Your task to perform on an android device: stop showing notifications on the lock screen Image 0: 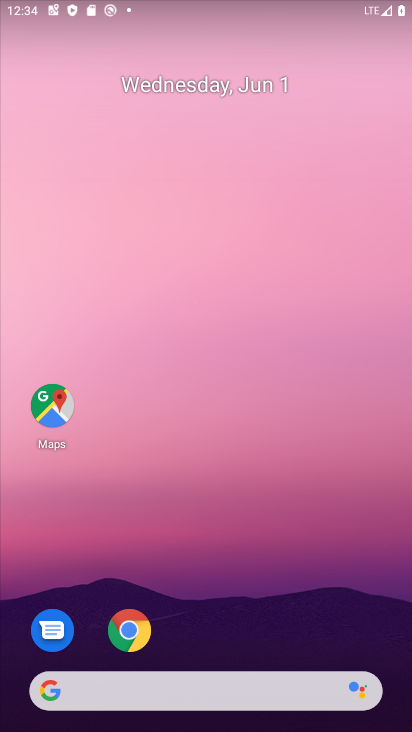
Step 0: drag from (316, 626) to (234, 97)
Your task to perform on an android device: stop showing notifications on the lock screen Image 1: 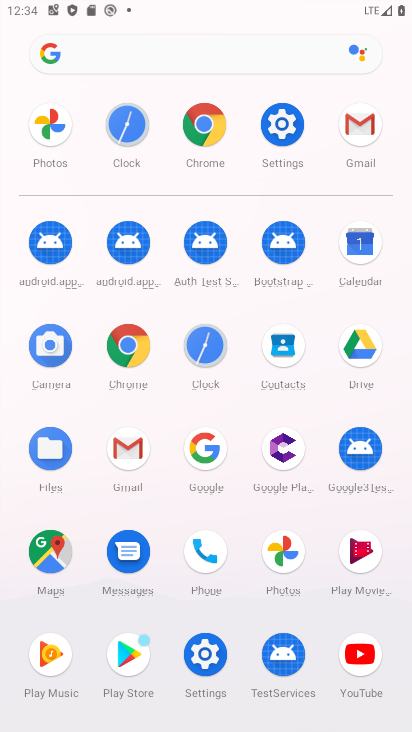
Step 1: click (286, 128)
Your task to perform on an android device: stop showing notifications on the lock screen Image 2: 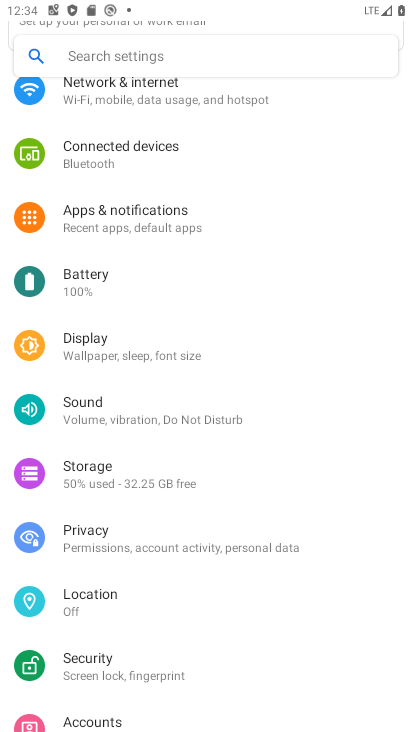
Step 2: drag from (349, 97) to (326, 367)
Your task to perform on an android device: stop showing notifications on the lock screen Image 3: 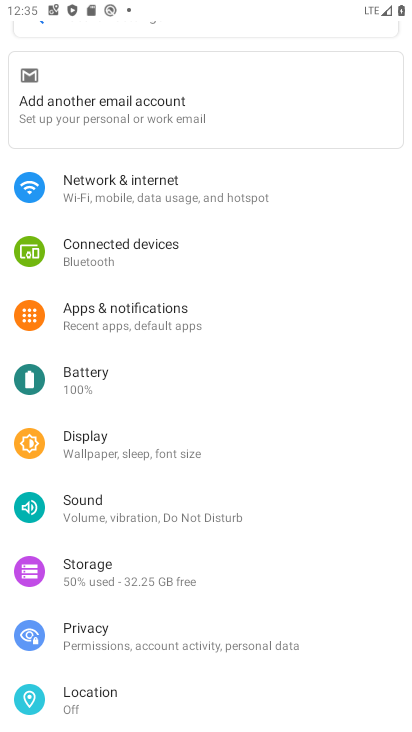
Step 3: click (124, 309)
Your task to perform on an android device: stop showing notifications on the lock screen Image 4: 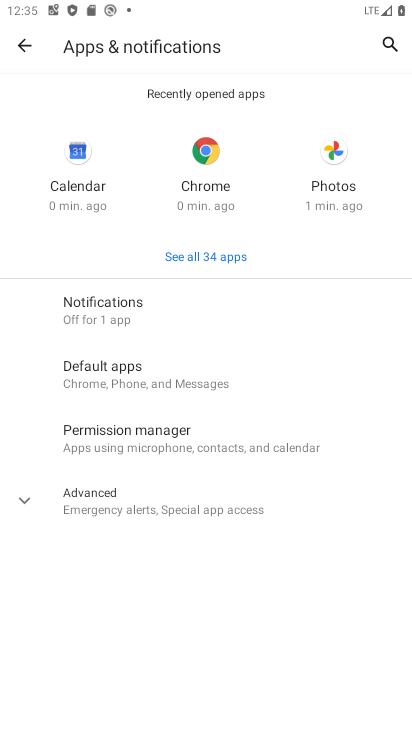
Step 4: click (27, 495)
Your task to perform on an android device: stop showing notifications on the lock screen Image 5: 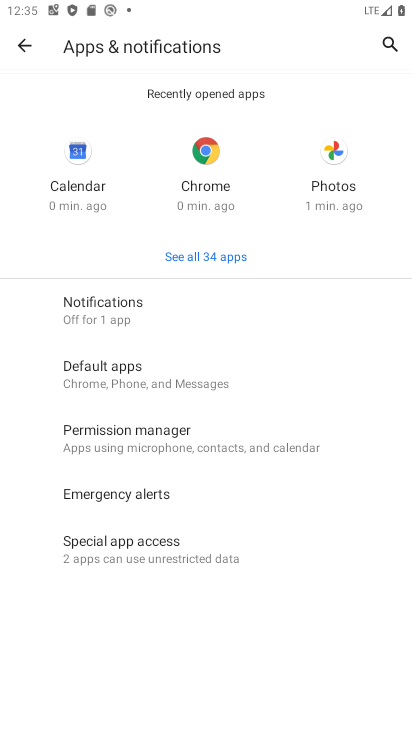
Step 5: click (156, 296)
Your task to perform on an android device: stop showing notifications on the lock screen Image 6: 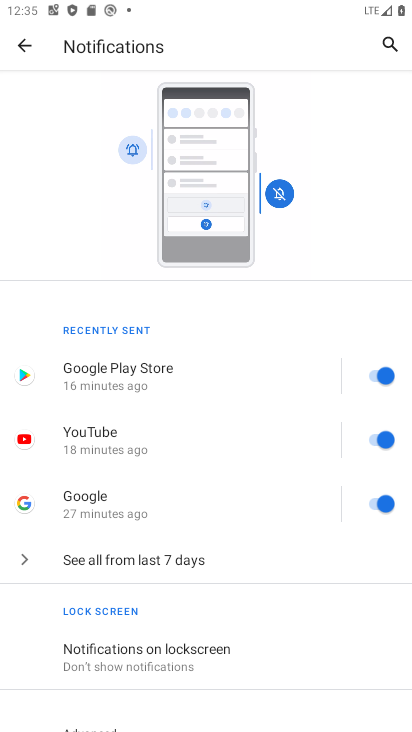
Step 6: click (208, 643)
Your task to perform on an android device: stop showing notifications on the lock screen Image 7: 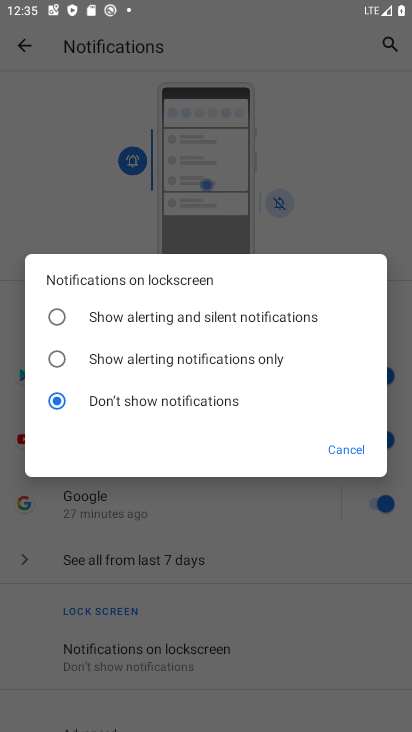
Step 7: click (100, 309)
Your task to perform on an android device: stop showing notifications on the lock screen Image 8: 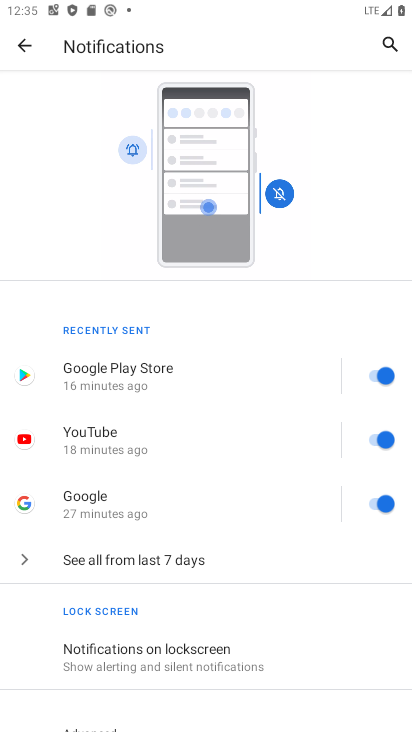
Step 8: click (189, 673)
Your task to perform on an android device: stop showing notifications on the lock screen Image 9: 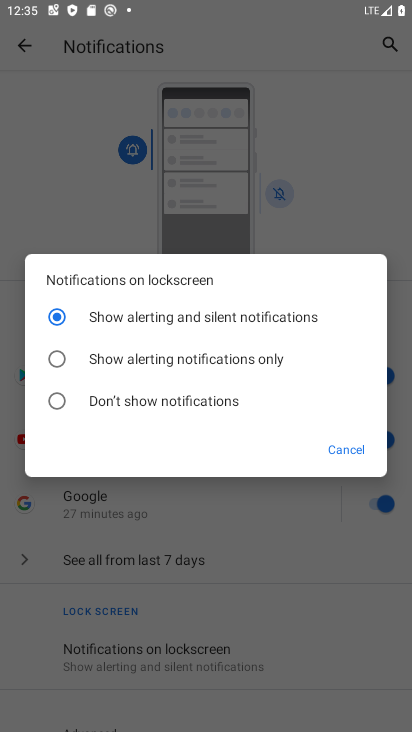
Step 9: task complete